Your task to perform on an android device: turn off wifi Image 0: 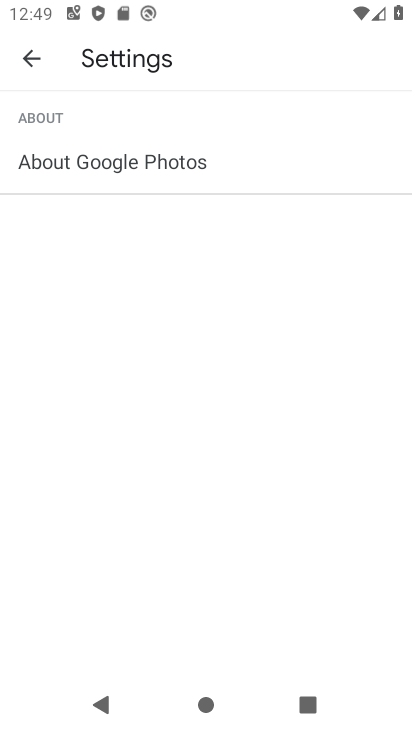
Step 0: press back button
Your task to perform on an android device: turn off wifi Image 1: 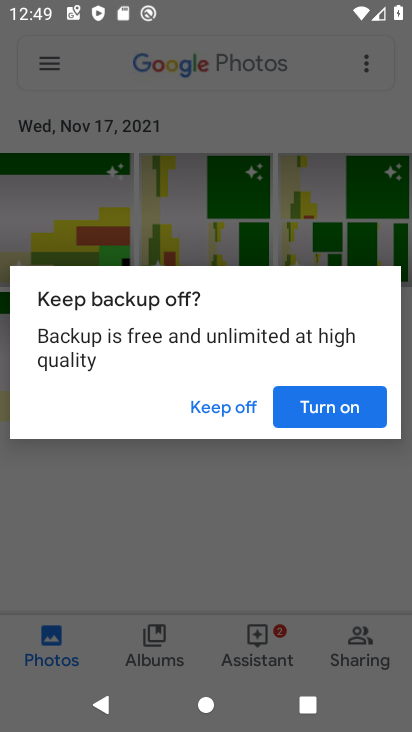
Step 1: press home button
Your task to perform on an android device: turn off wifi Image 2: 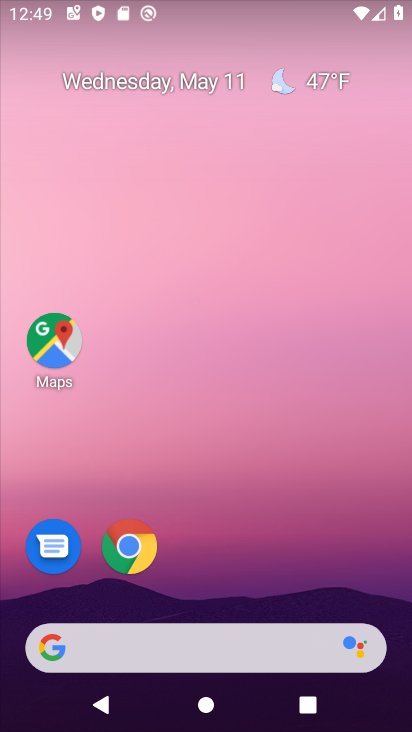
Step 2: drag from (212, 625) to (349, 41)
Your task to perform on an android device: turn off wifi Image 3: 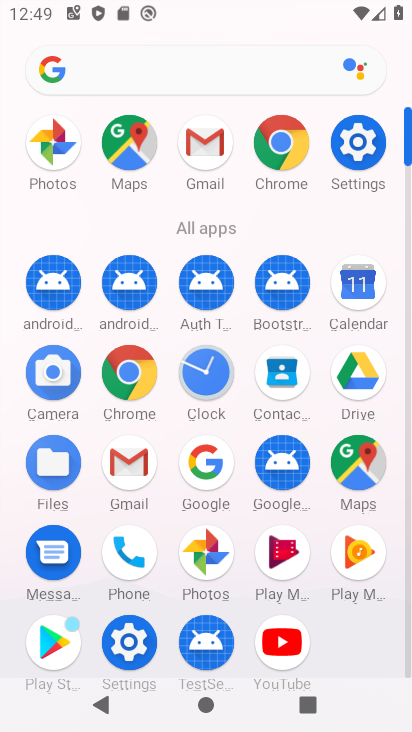
Step 3: click (117, 652)
Your task to perform on an android device: turn off wifi Image 4: 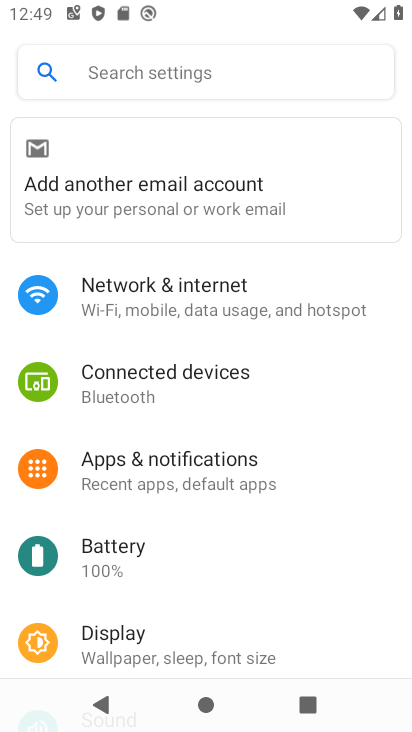
Step 4: click (215, 302)
Your task to perform on an android device: turn off wifi Image 5: 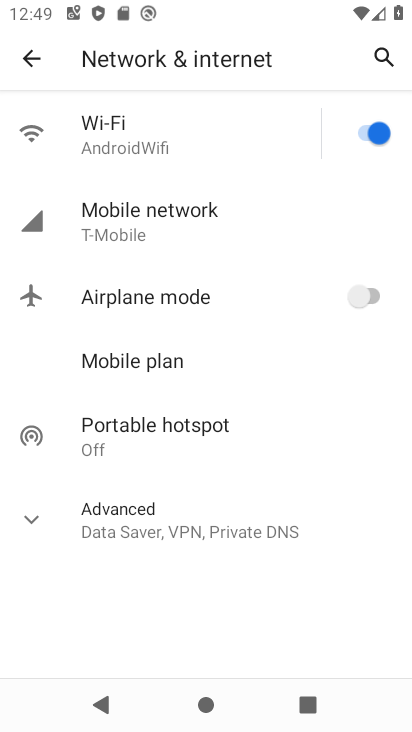
Step 5: click (368, 138)
Your task to perform on an android device: turn off wifi Image 6: 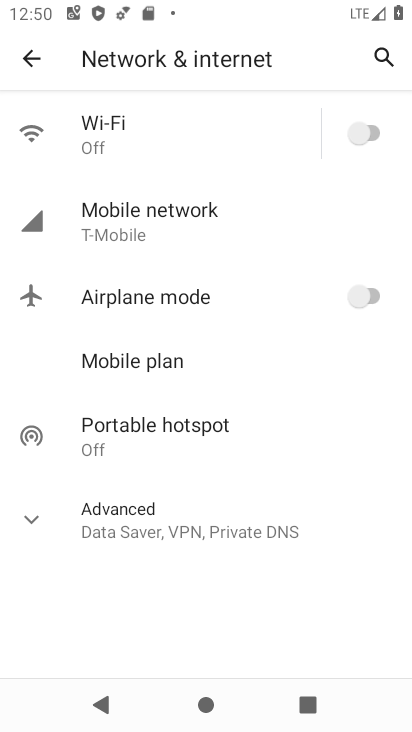
Step 6: task complete